Your task to perform on an android device: see tabs open on other devices in the chrome app Image 0: 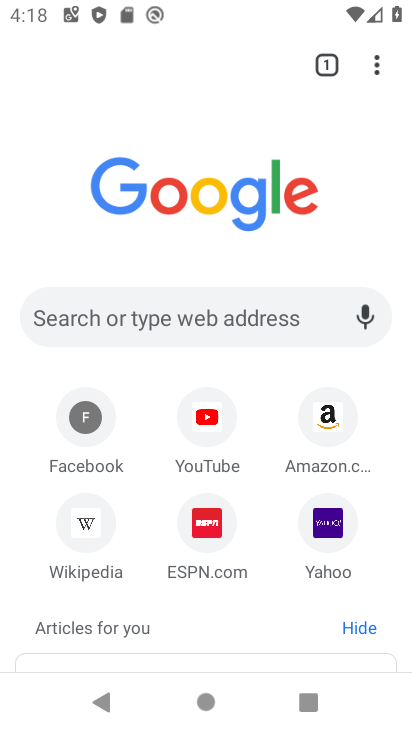
Step 0: press home button
Your task to perform on an android device: see tabs open on other devices in the chrome app Image 1: 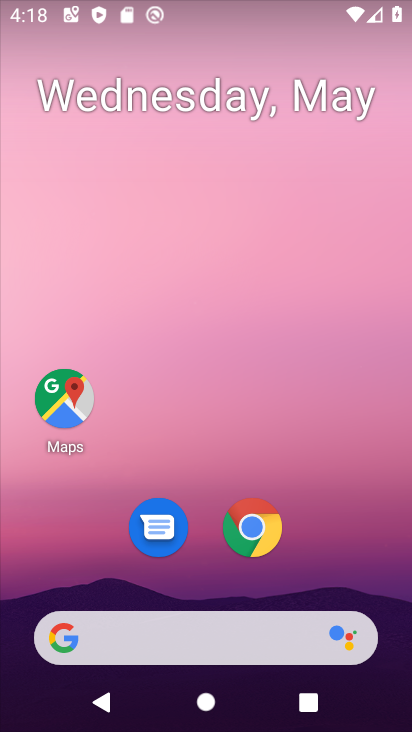
Step 1: click (258, 535)
Your task to perform on an android device: see tabs open on other devices in the chrome app Image 2: 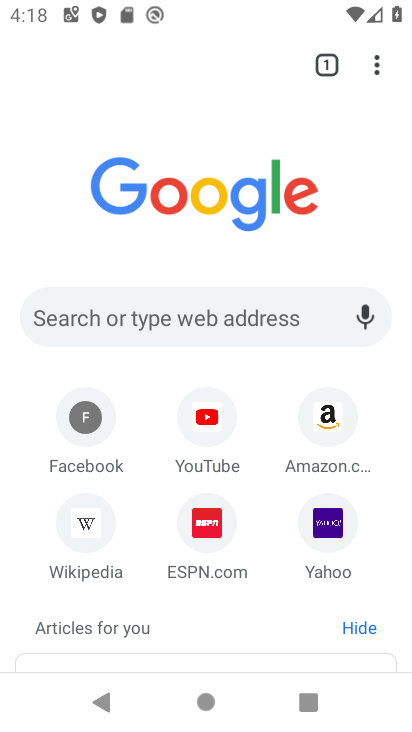
Step 2: task complete